Your task to perform on an android device: What's the weather going to be tomorrow? Image 0: 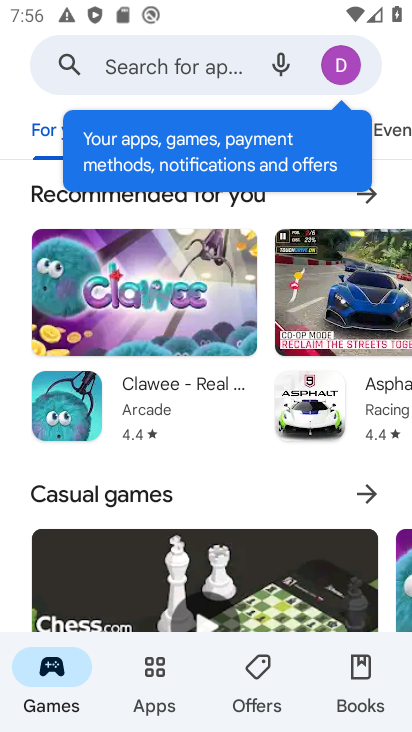
Step 0: press home button
Your task to perform on an android device: What's the weather going to be tomorrow? Image 1: 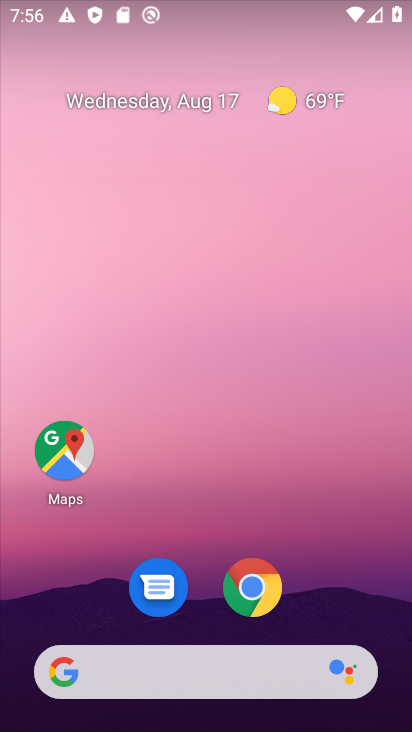
Step 1: click (100, 669)
Your task to perform on an android device: What's the weather going to be tomorrow? Image 2: 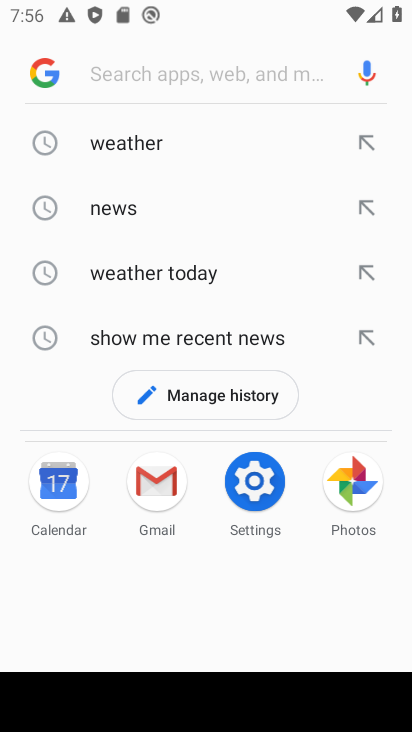
Step 2: type "What's the weather going to be tomorrow?"
Your task to perform on an android device: What's the weather going to be tomorrow? Image 3: 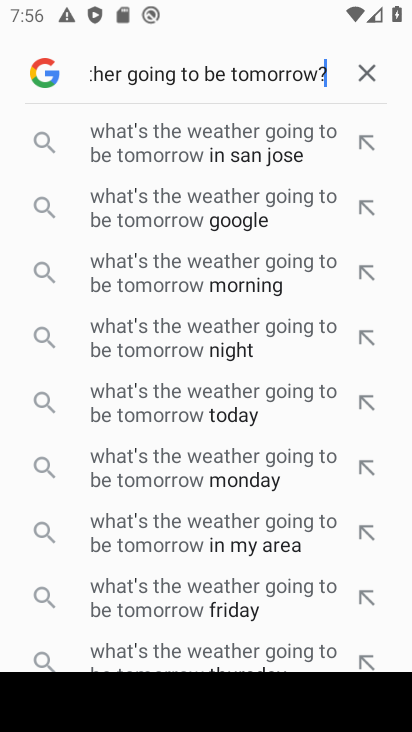
Step 3: type ""
Your task to perform on an android device: What's the weather going to be tomorrow? Image 4: 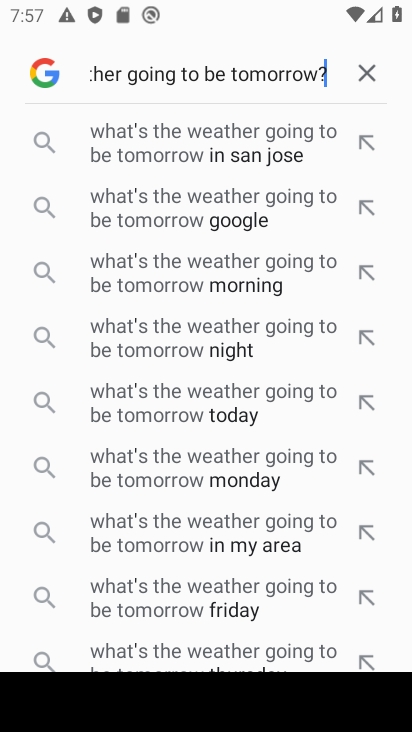
Step 4: task complete